Your task to perform on an android device: check out phone information Image 0: 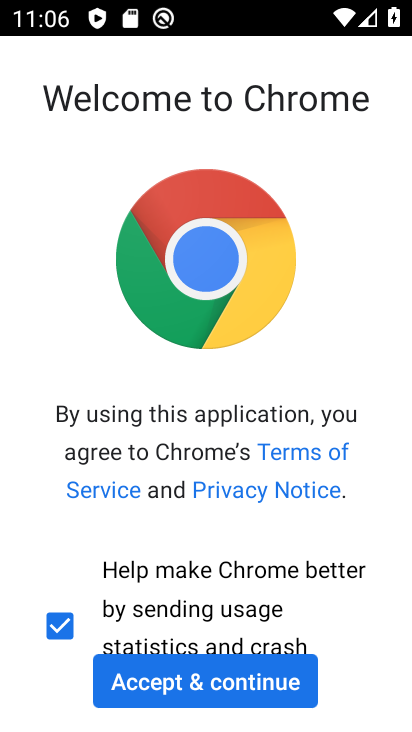
Step 0: press home button
Your task to perform on an android device: check out phone information Image 1: 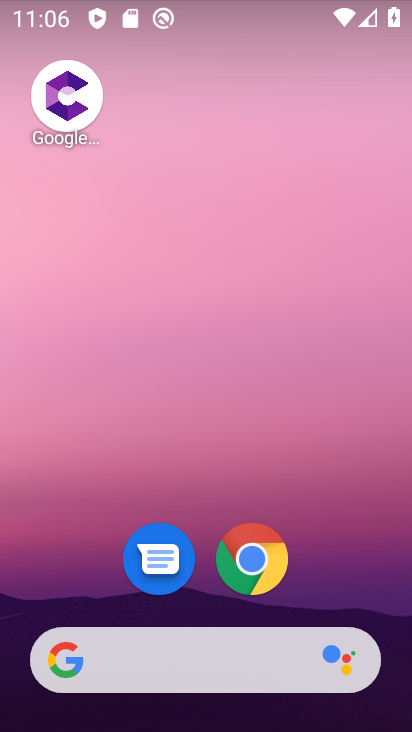
Step 1: drag from (195, 584) to (193, 45)
Your task to perform on an android device: check out phone information Image 2: 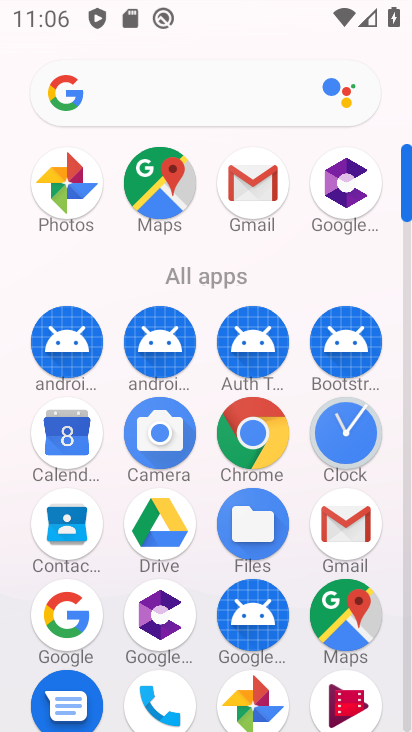
Step 2: drag from (202, 569) to (240, 176)
Your task to perform on an android device: check out phone information Image 3: 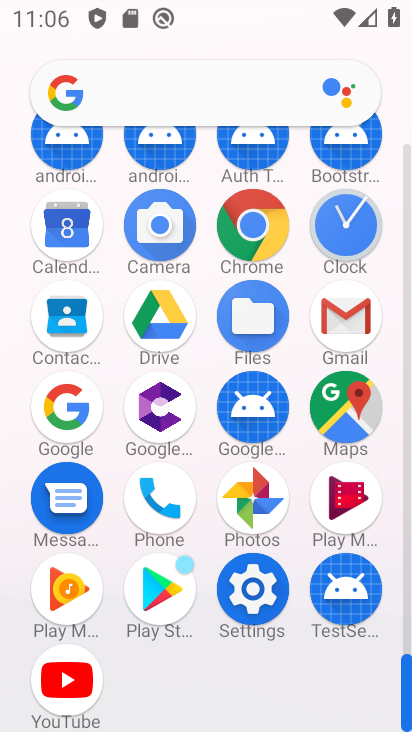
Step 3: click (252, 604)
Your task to perform on an android device: check out phone information Image 4: 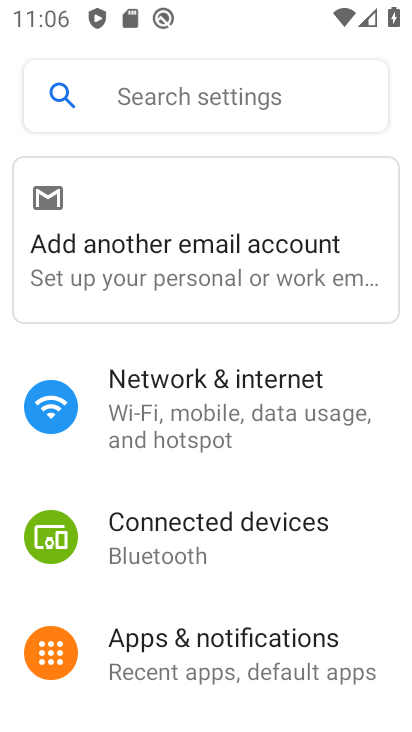
Step 4: drag from (179, 581) to (252, 164)
Your task to perform on an android device: check out phone information Image 5: 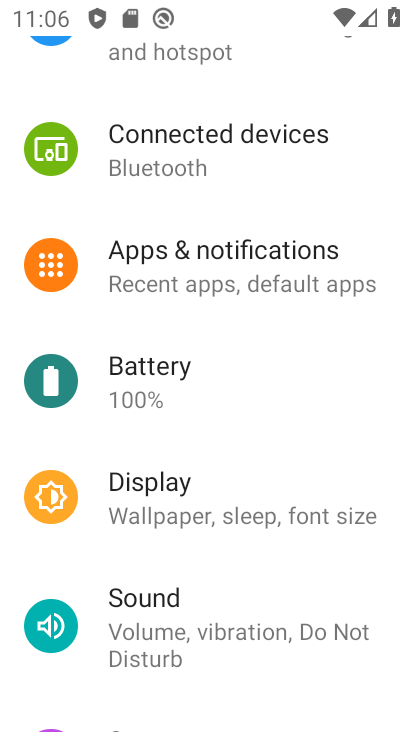
Step 5: drag from (176, 558) to (266, 32)
Your task to perform on an android device: check out phone information Image 6: 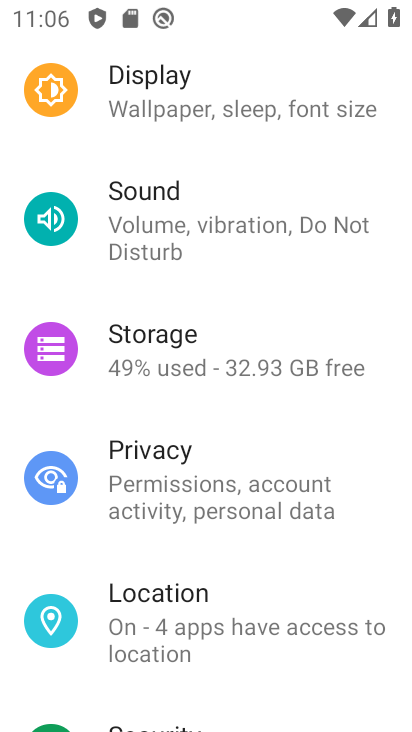
Step 6: drag from (220, 637) to (290, 166)
Your task to perform on an android device: check out phone information Image 7: 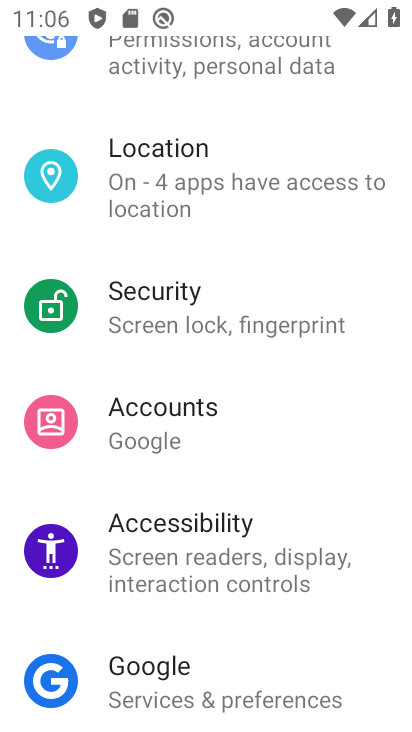
Step 7: drag from (248, 623) to (275, 149)
Your task to perform on an android device: check out phone information Image 8: 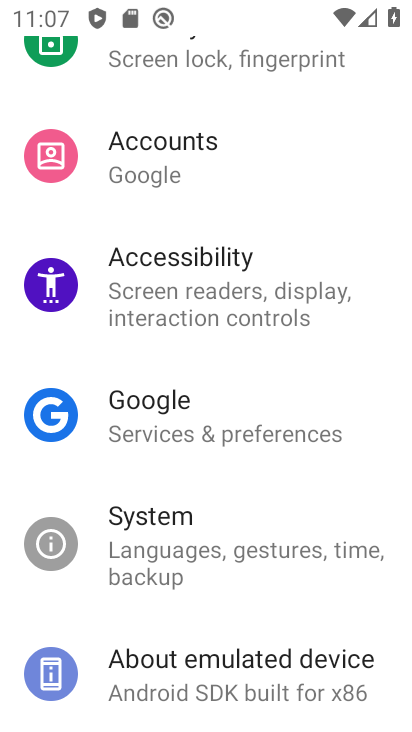
Step 8: click (155, 665)
Your task to perform on an android device: check out phone information Image 9: 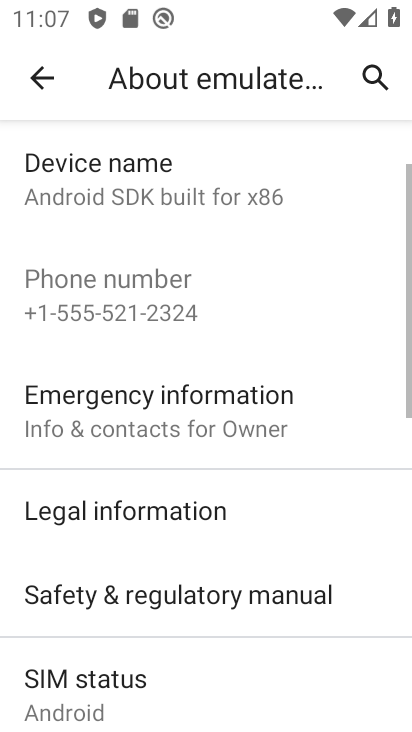
Step 9: task complete